Your task to perform on an android device: Go to Maps Image 0: 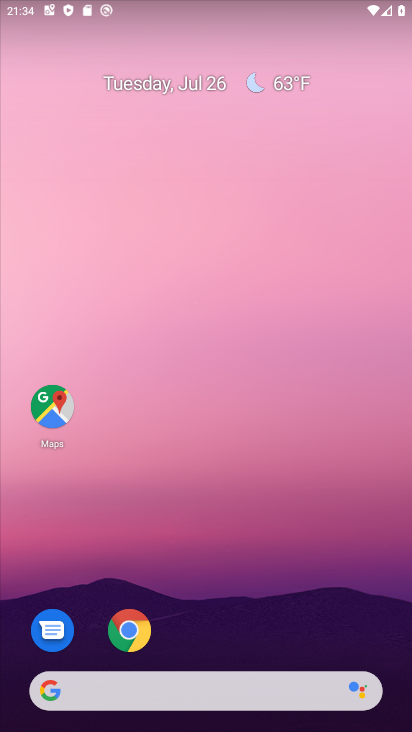
Step 0: click (55, 409)
Your task to perform on an android device: Go to Maps Image 1: 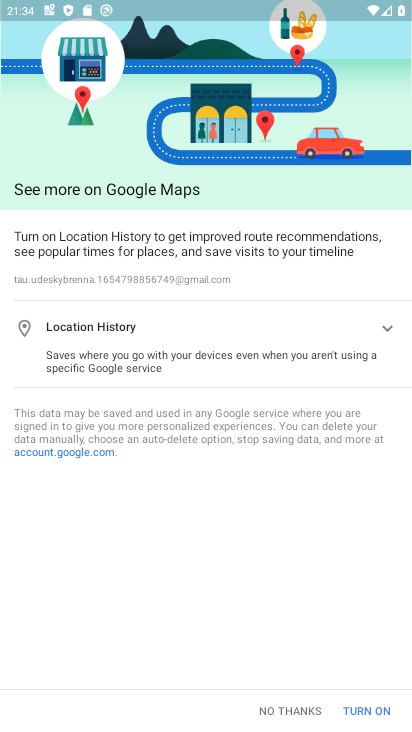
Step 1: click (296, 690)
Your task to perform on an android device: Go to Maps Image 2: 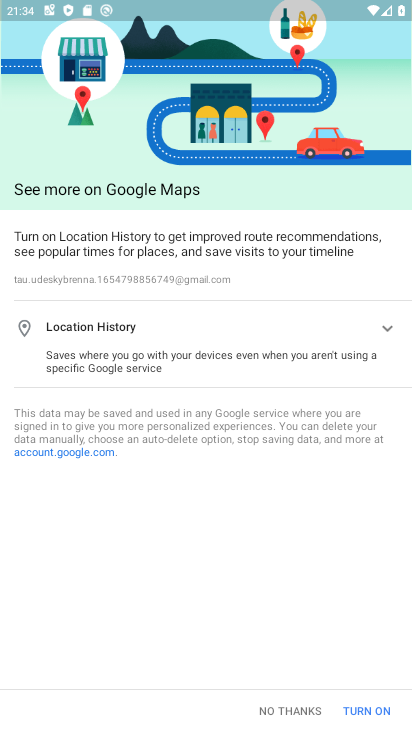
Step 2: click (307, 706)
Your task to perform on an android device: Go to Maps Image 3: 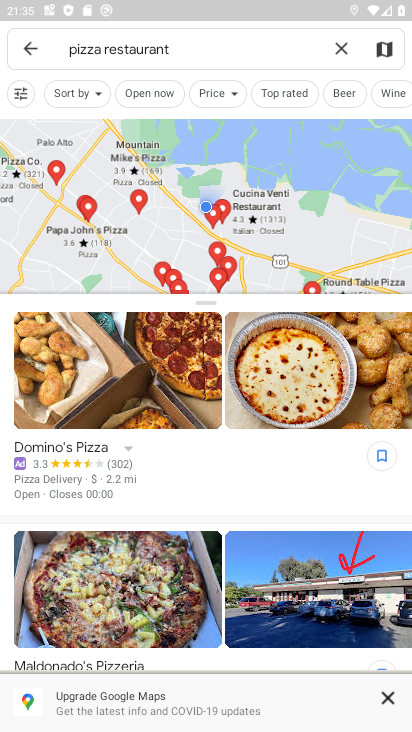
Step 3: task complete